Your task to perform on an android device: What's the weather? Image 0: 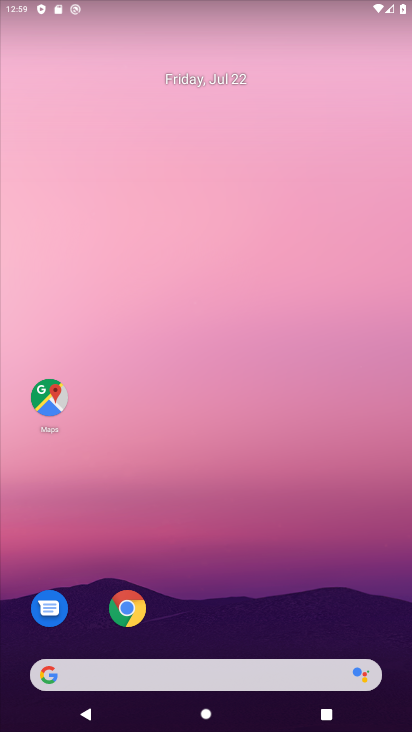
Step 0: drag from (8, 285) to (407, 279)
Your task to perform on an android device: What's the weather? Image 1: 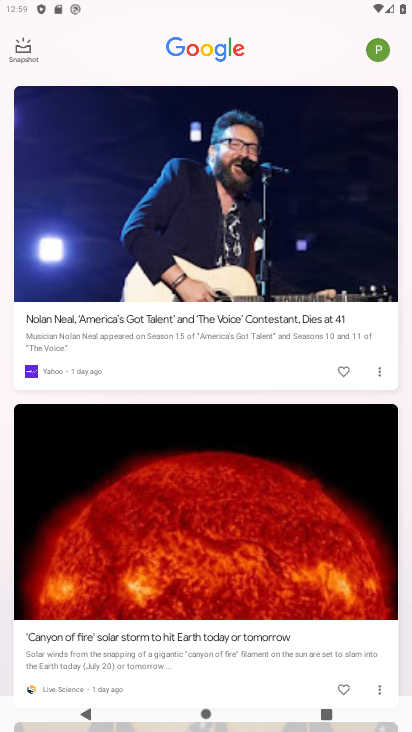
Step 1: task complete